Your task to perform on an android device: check google app version Image 0: 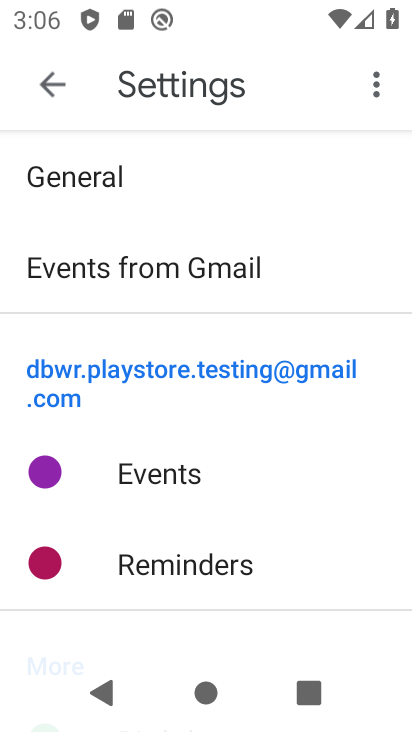
Step 0: press home button
Your task to perform on an android device: check google app version Image 1: 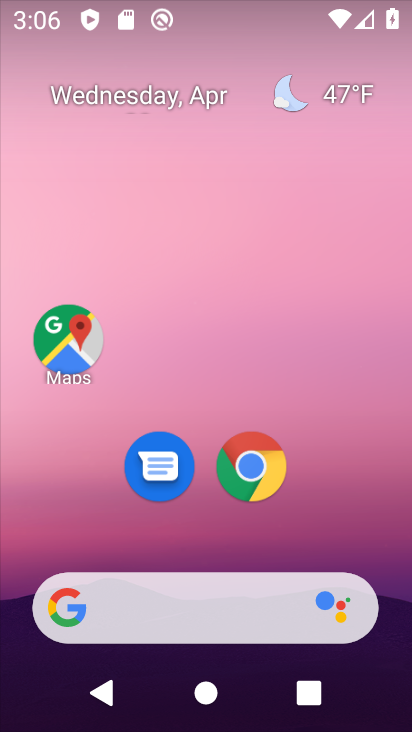
Step 1: drag from (317, 520) to (48, 93)
Your task to perform on an android device: check google app version Image 2: 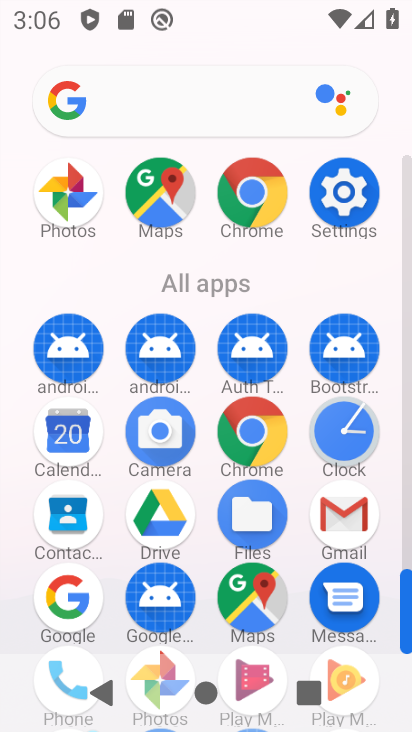
Step 2: click (72, 593)
Your task to perform on an android device: check google app version Image 3: 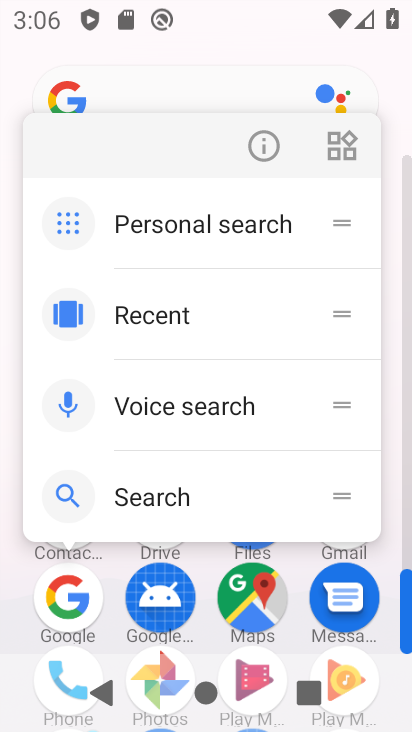
Step 3: click (79, 600)
Your task to perform on an android device: check google app version Image 4: 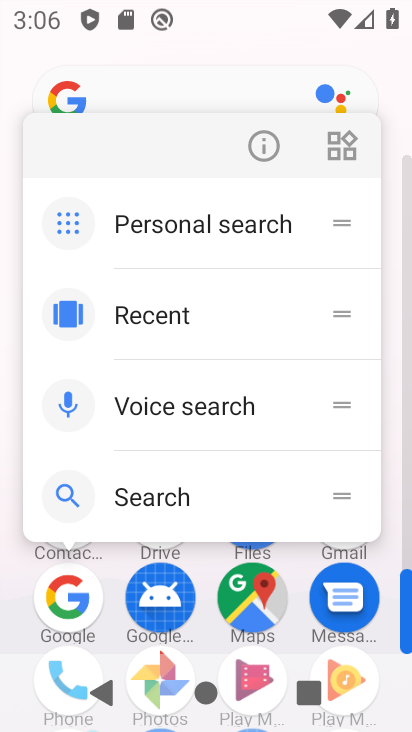
Step 4: click (79, 600)
Your task to perform on an android device: check google app version Image 5: 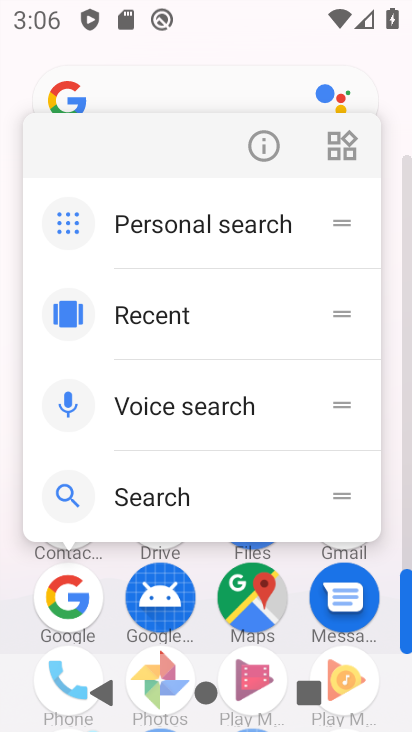
Step 5: click (79, 600)
Your task to perform on an android device: check google app version Image 6: 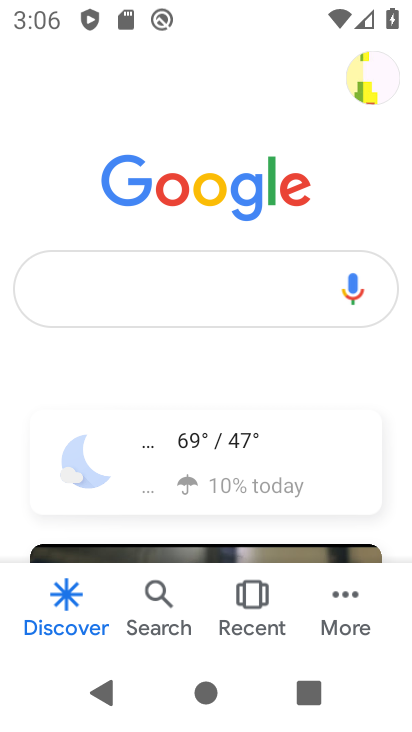
Step 6: click (352, 604)
Your task to perform on an android device: check google app version Image 7: 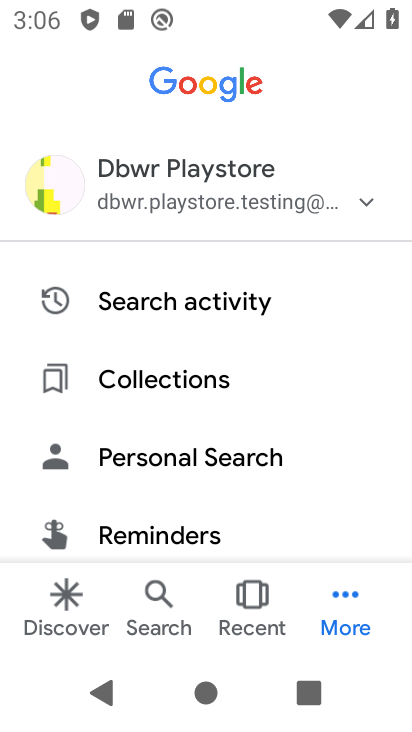
Step 7: click (352, 593)
Your task to perform on an android device: check google app version Image 8: 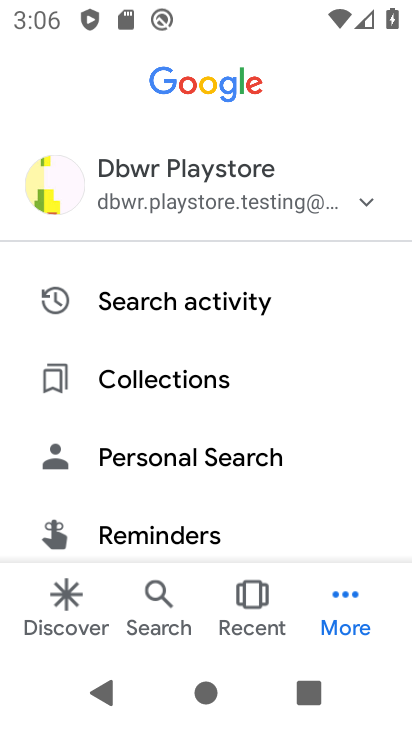
Step 8: click (347, 594)
Your task to perform on an android device: check google app version Image 9: 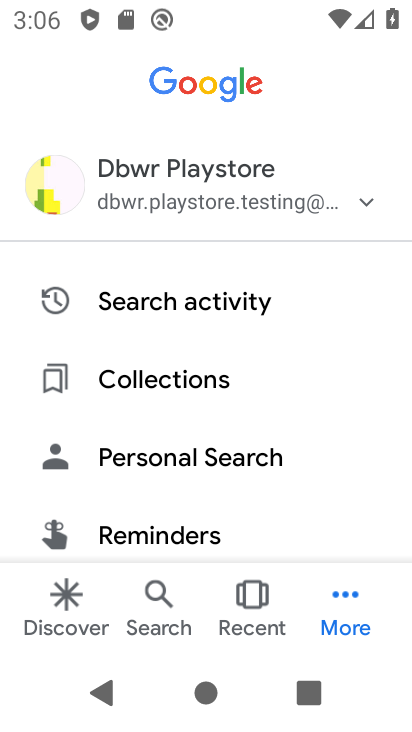
Step 9: drag from (283, 529) to (205, 129)
Your task to perform on an android device: check google app version Image 10: 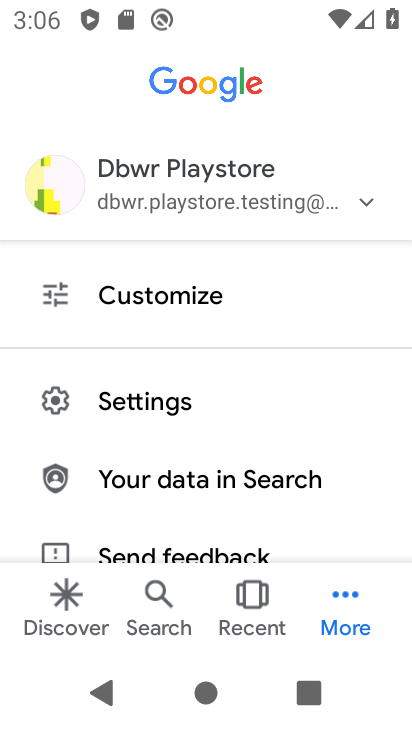
Step 10: click (102, 399)
Your task to perform on an android device: check google app version Image 11: 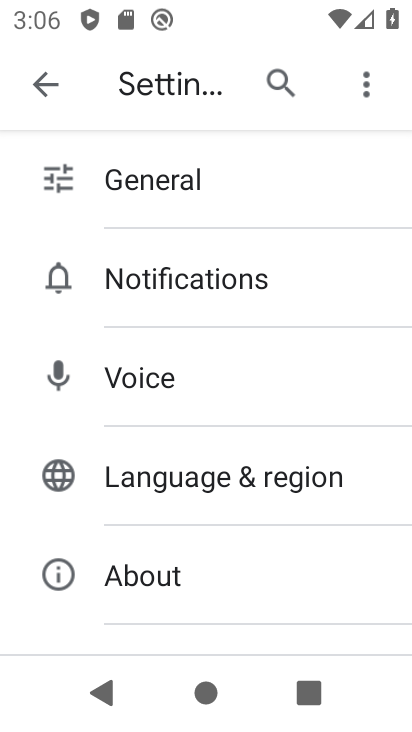
Step 11: click (182, 579)
Your task to perform on an android device: check google app version Image 12: 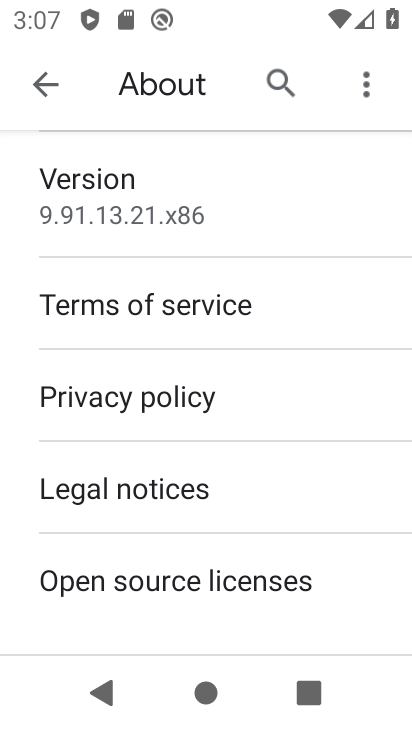
Step 12: task complete